Your task to perform on an android device: find snoozed emails in the gmail app Image 0: 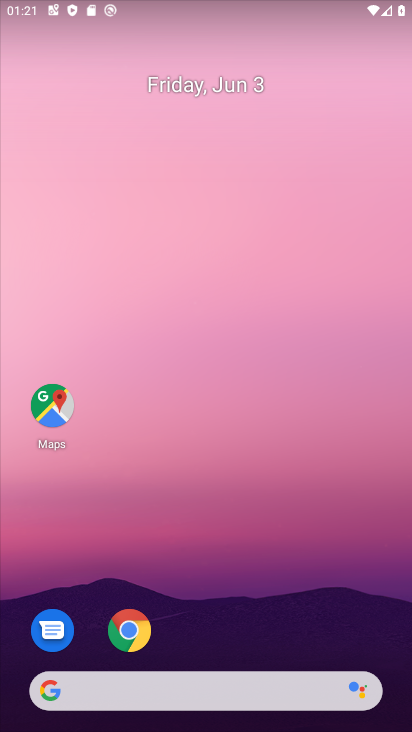
Step 0: drag from (261, 634) to (231, 167)
Your task to perform on an android device: find snoozed emails in the gmail app Image 1: 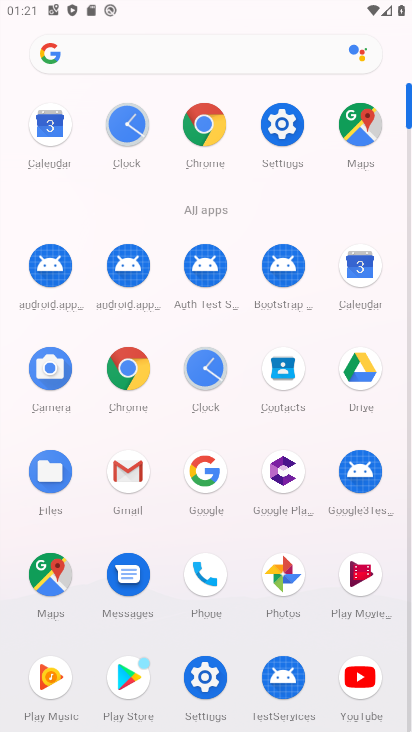
Step 1: click (137, 469)
Your task to perform on an android device: find snoozed emails in the gmail app Image 2: 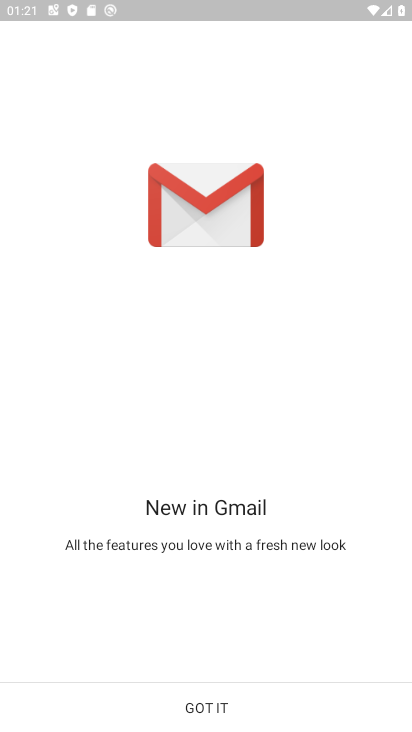
Step 2: click (224, 709)
Your task to perform on an android device: find snoozed emails in the gmail app Image 3: 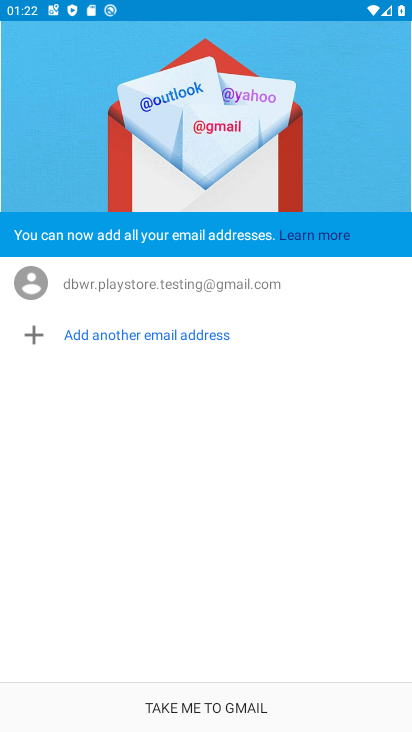
Step 3: click (224, 709)
Your task to perform on an android device: find snoozed emails in the gmail app Image 4: 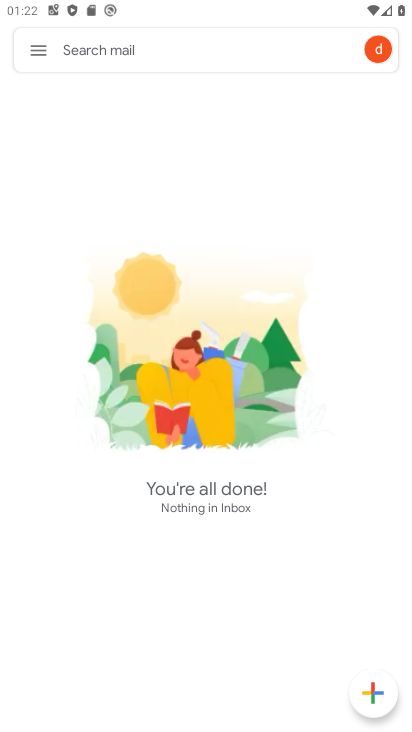
Step 4: click (35, 54)
Your task to perform on an android device: find snoozed emails in the gmail app Image 5: 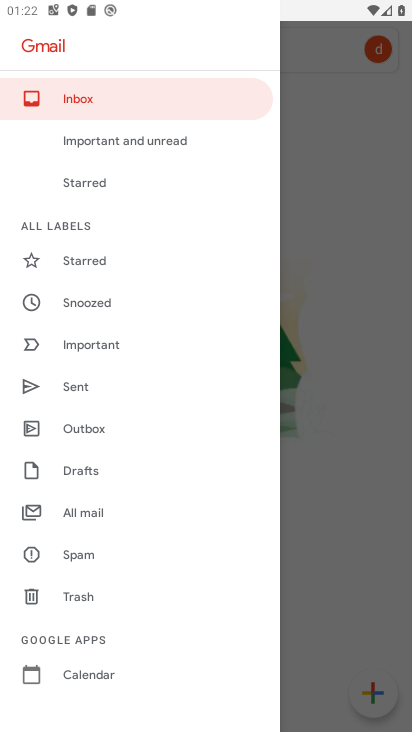
Step 5: click (127, 298)
Your task to perform on an android device: find snoozed emails in the gmail app Image 6: 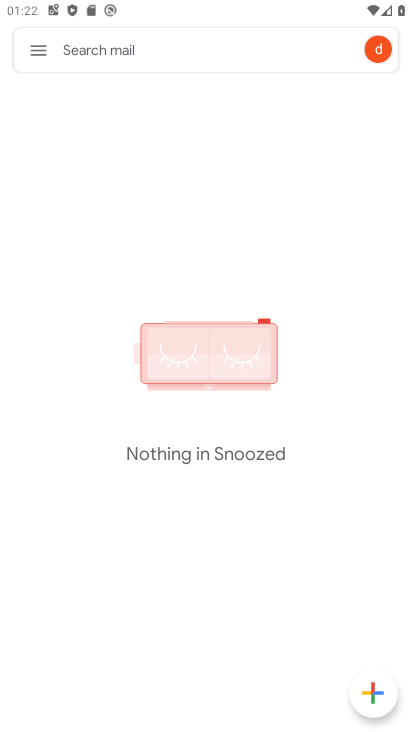
Step 6: task complete